Your task to perform on an android device: Go to privacy settings Image 0: 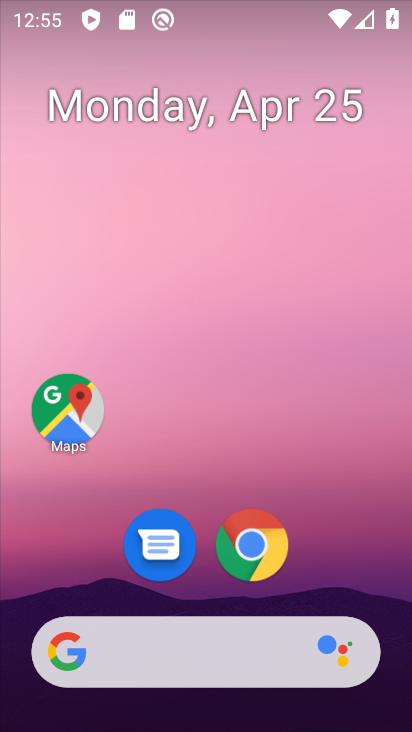
Step 0: drag from (338, 527) to (332, 84)
Your task to perform on an android device: Go to privacy settings Image 1: 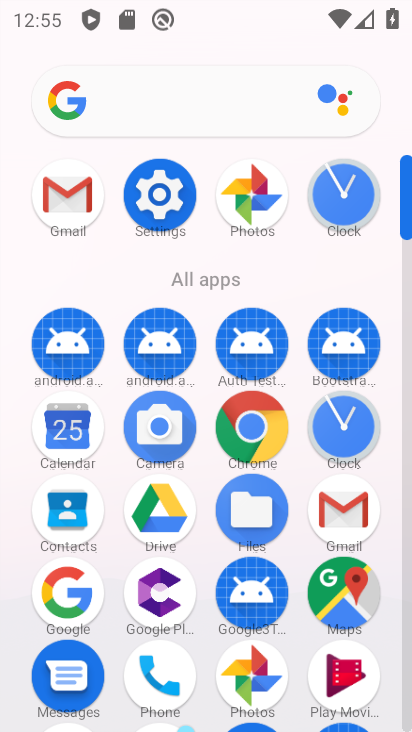
Step 1: click (159, 185)
Your task to perform on an android device: Go to privacy settings Image 2: 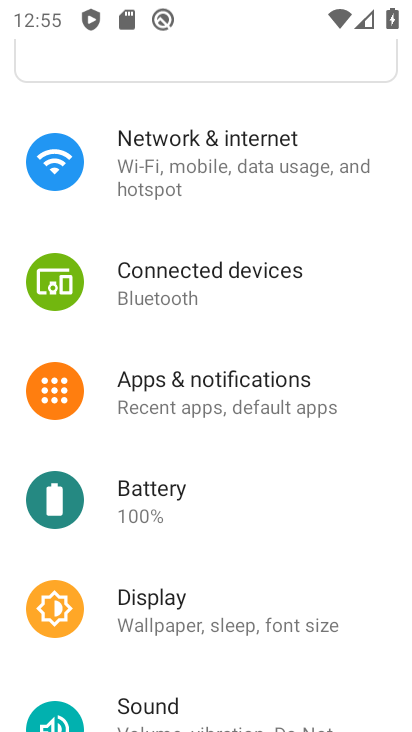
Step 2: drag from (292, 618) to (354, 182)
Your task to perform on an android device: Go to privacy settings Image 3: 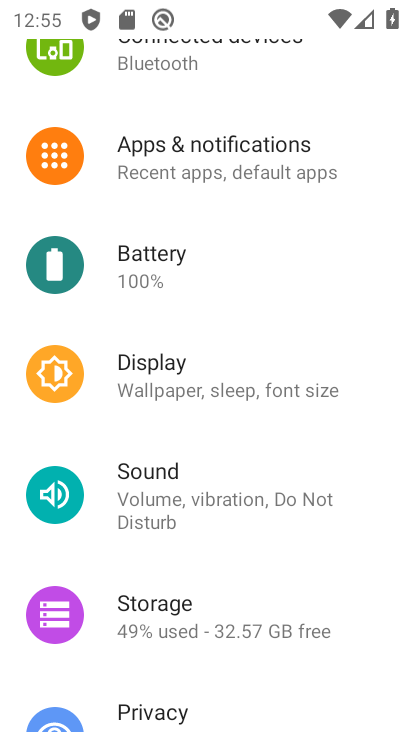
Step 3: drag from (306, 543) to (316, 212)
Your task to perform on an android device: Go to privacy settings Image 4: 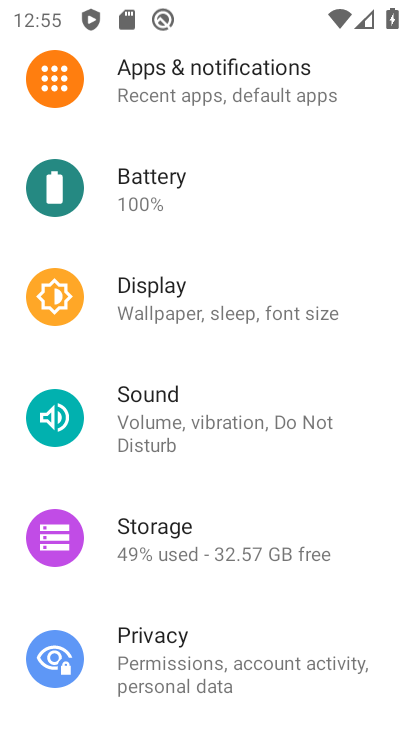
Step 4: click (258, 668)
Your task to perform on an android device: Go to privacy settings Image 5: 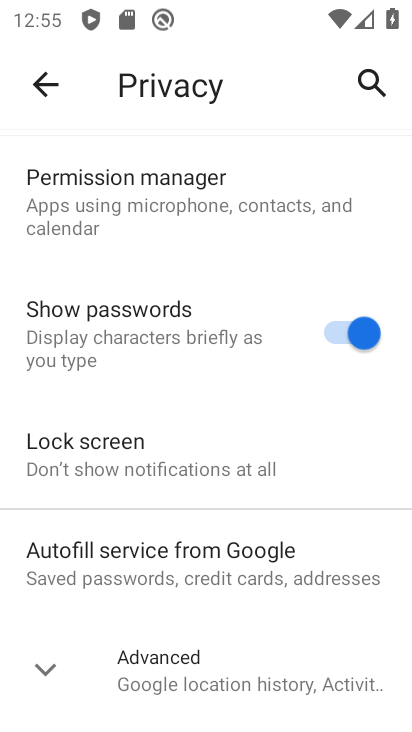
Step 5: task complete